Your task to perform on an android device: Open wifi settings Image 0: 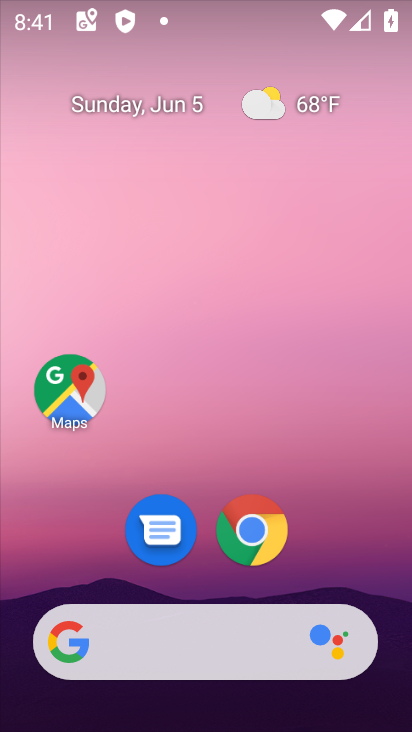
Step 0: drag from (400, 629) to (350, 97)
Your task to perform on an android device: Open wifi settings Image 1: 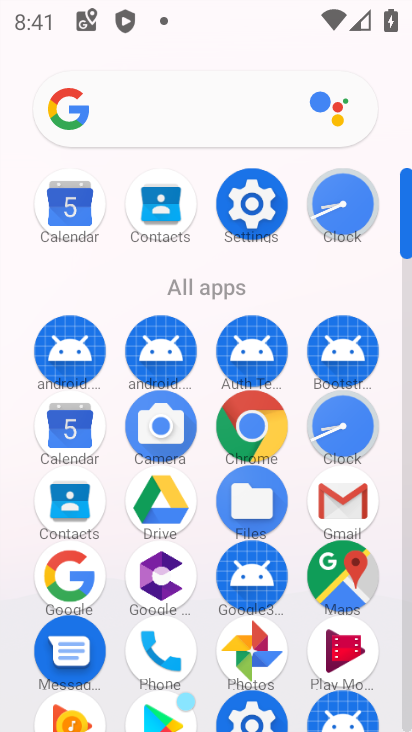
Step 1: click (405, 687)
Your task to perform on an android device: Open wifi settings Image 2: 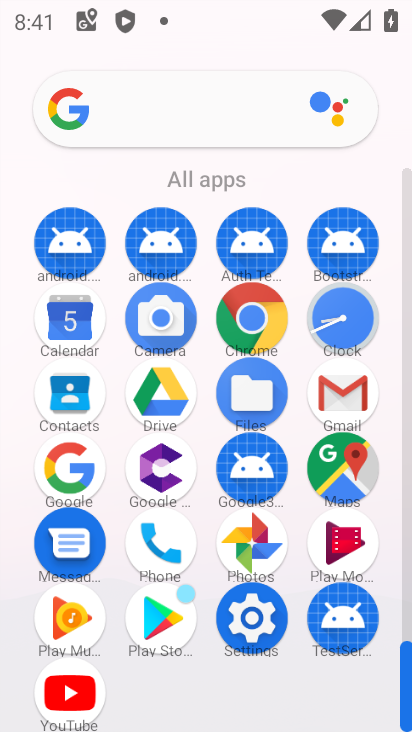
Step 2: click (250, 616)
Your task to perform on an android device: Open wifi settings Image 3: 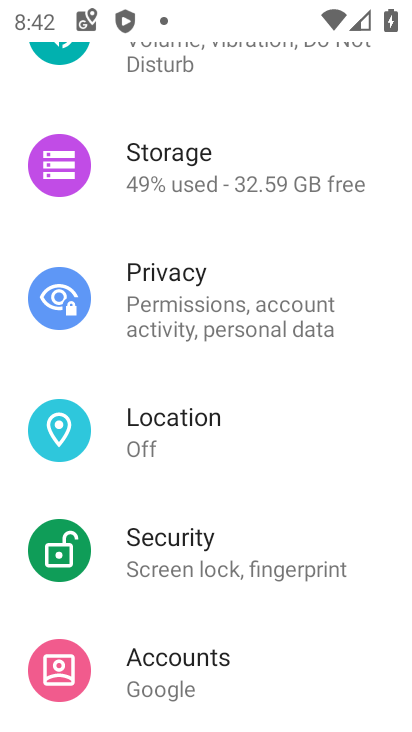
Step 3: drag from (332, 191) to (311, 530)
Your task to perform on an android device: Open wifi settings Image 4: 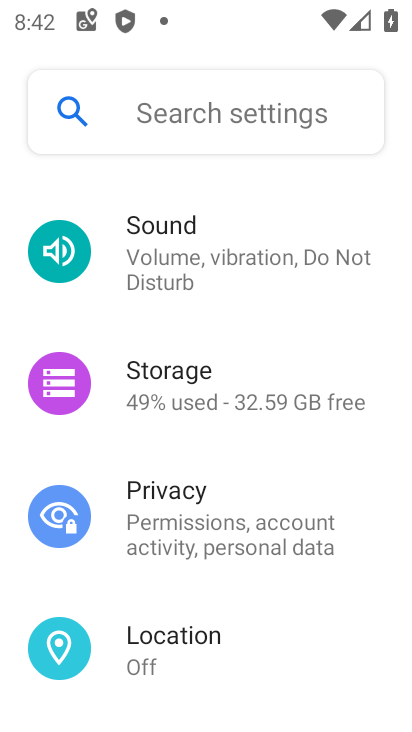
Step 4: drag from (335, 238) to (327, 524)
Your task to perform on an android device: Open wifi settings Image 5: 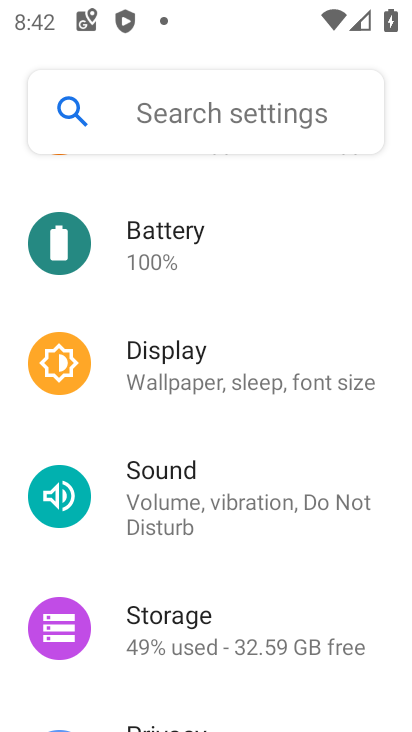
Step 5: drag from (326, 252) to (317, 591)
Your task to perform on an android device: Open wifi settings Image 6: 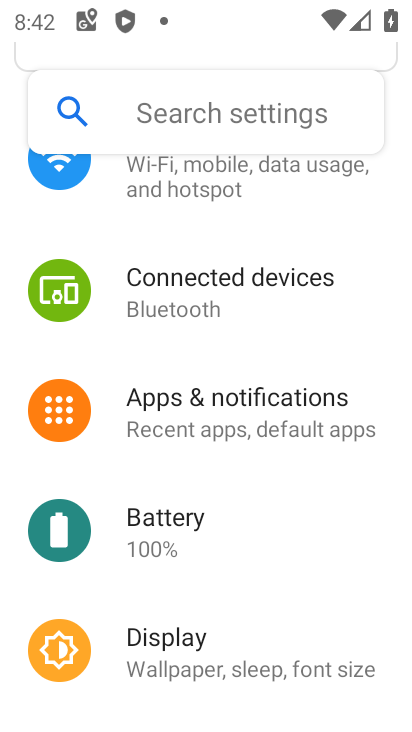
Step 6: drag from (268, 243) to (291, 506)
Your task to perform on an android device: Open wifi settings Image 7: 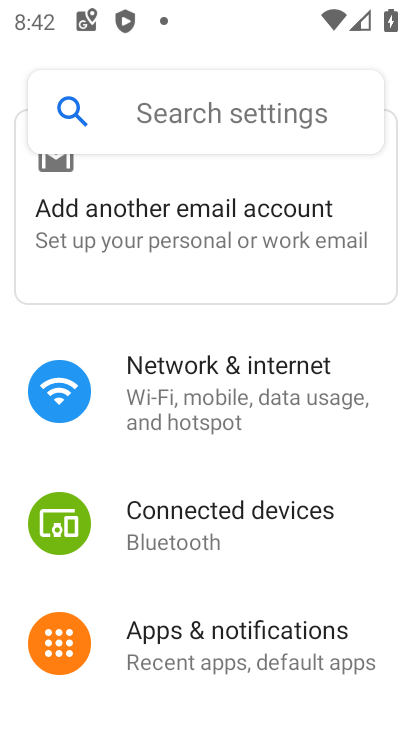
Step 7: click (176, 381)
Your task to perform on an android device: Open wifi settings Image 8: 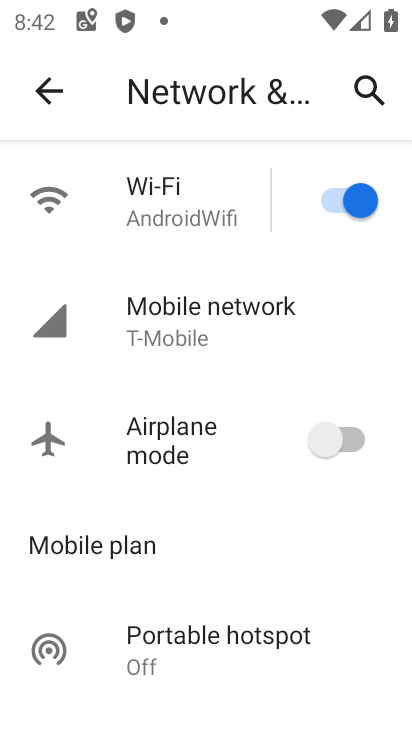
Step 8: click (142, 201)
Your task to perform on an android device: Open wifi settings Image 9: 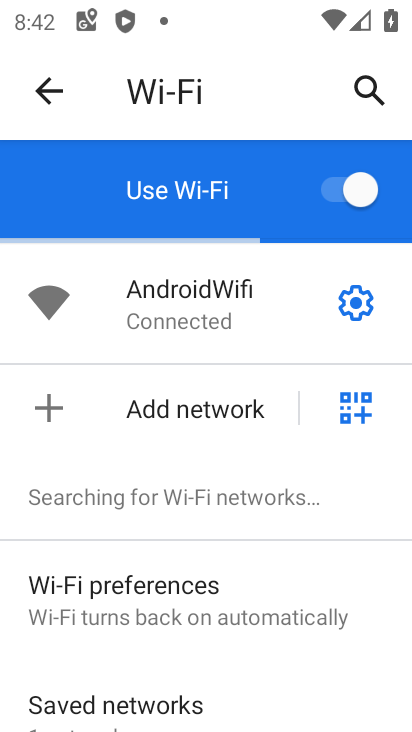
Step 9: drag from (263, 585) to (271, 390)
Your task to perform on an android device: Open wifi settings Image 10: 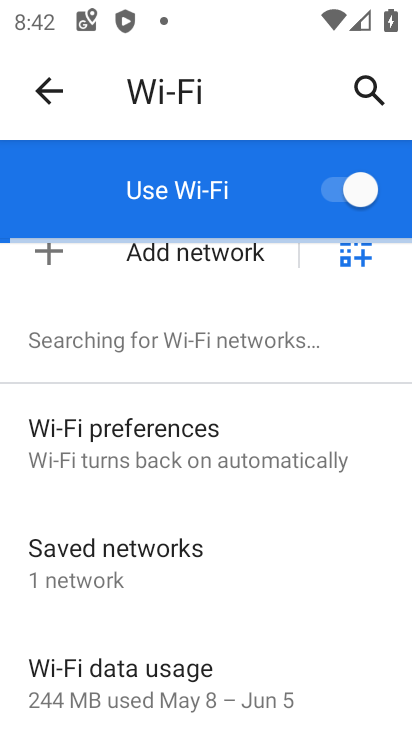
Step 10: click (268, 638)
Your task to perform on an android device: Open wifi settings Image 11: 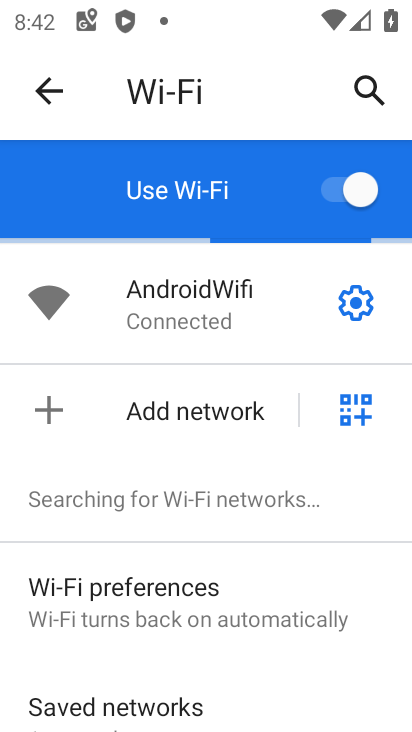
Step 11: click (355, 306)
Your task to perform on an android device: Open wifi settings Image 12: 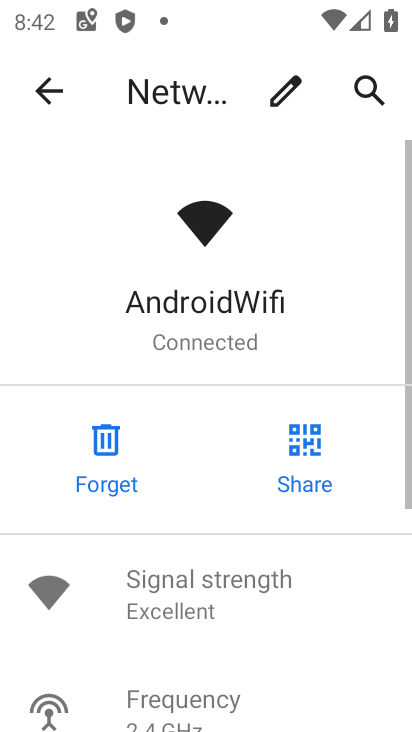
Step 12: task complete